Your task to perform on an android device: turn notification dots on Image 0: 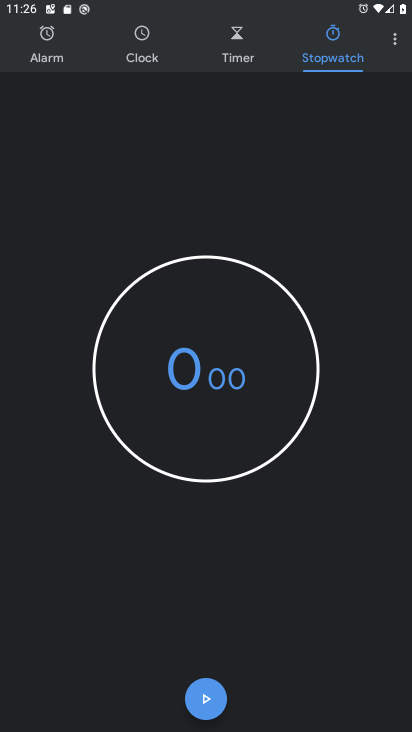
Step 0: task complete